Your task to perform on an android device: turn off wifi Image 0: 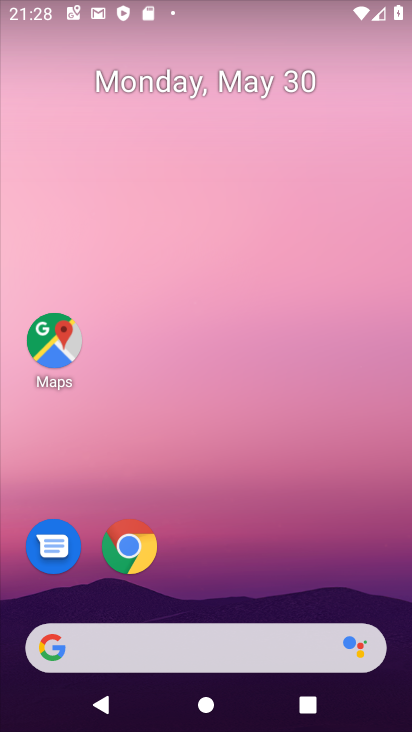
Step 0: drag from (290, 522) to (273, 158)
Your task to perform on an android device: turn off wifi Image 1: 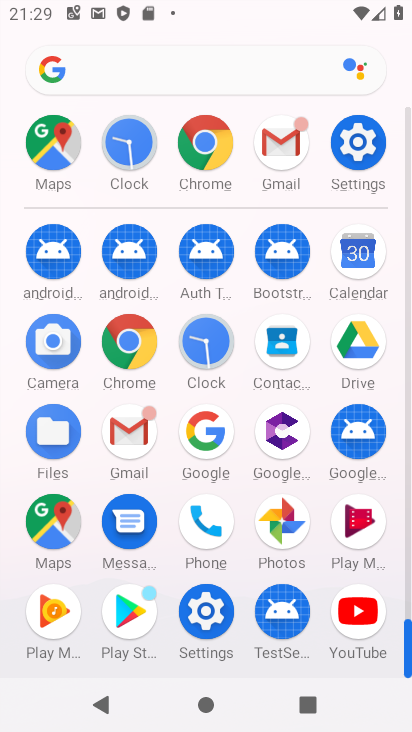
Step 1: click (348, 170)
Your task to perform on an android device: turn off wifi Image 2: 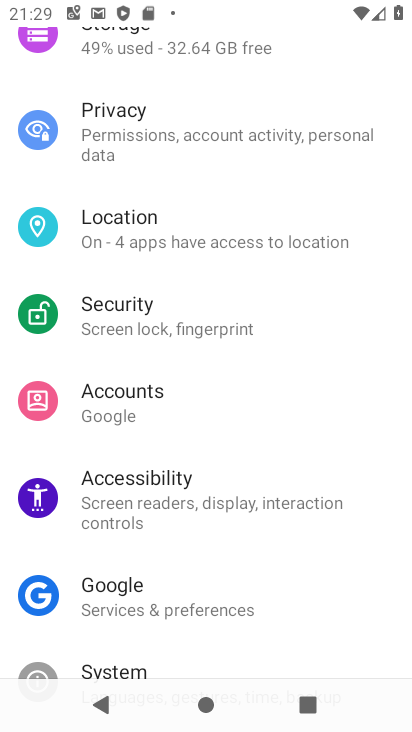
Step 2: drag from (343, 171) to (348, 582)
Your task to perform on an android device: turn off wifi Image 3: 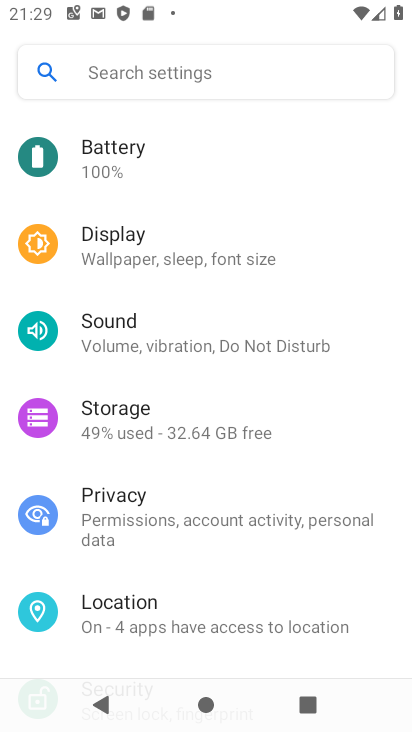
Step 3: drag from (287, 212) to (291, 602)
Your task to perform on an android device: turn off wifi Image 4: 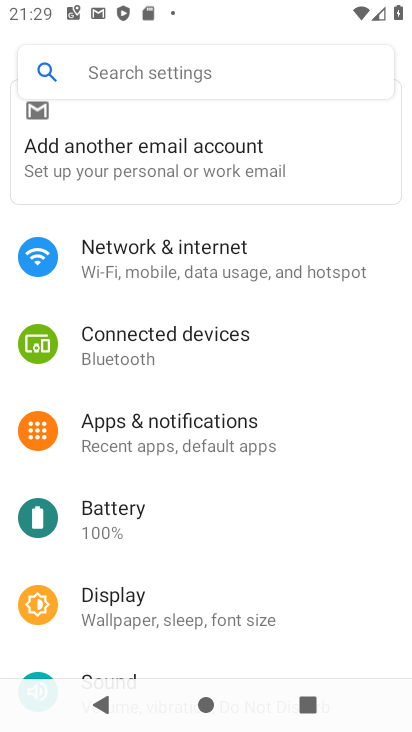
Step 4: click (249, 274)
Your task to perform on an android device: turn off wifi Image 5: 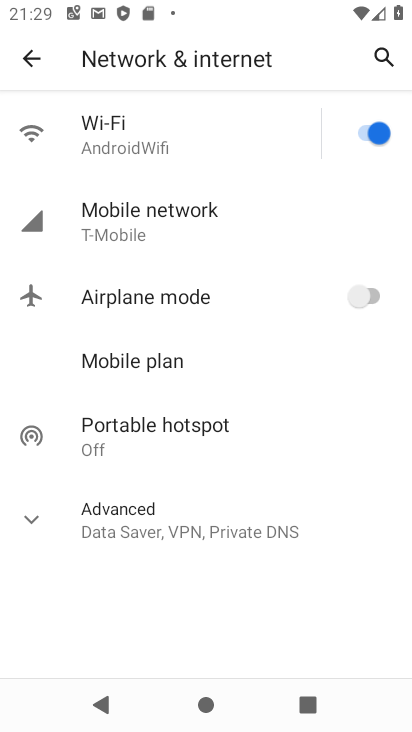
Step 5: click (358, 141)
Your task to perform on an android device: turn off wifi Image 6: 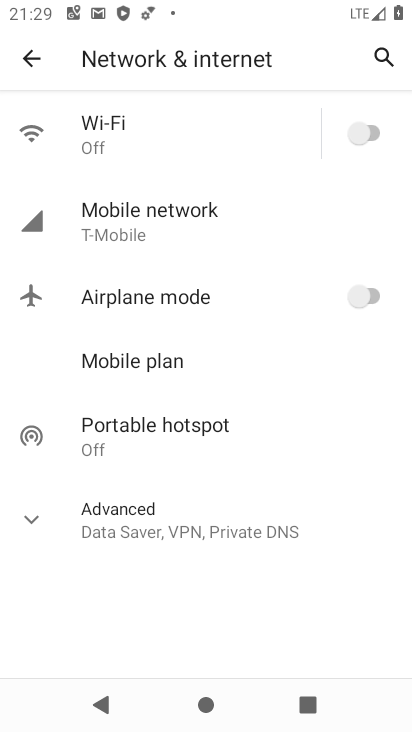
Step 6: task complete